Your task to perform on an android device: Open Youtube and go to the subscriptions tab Image 0: 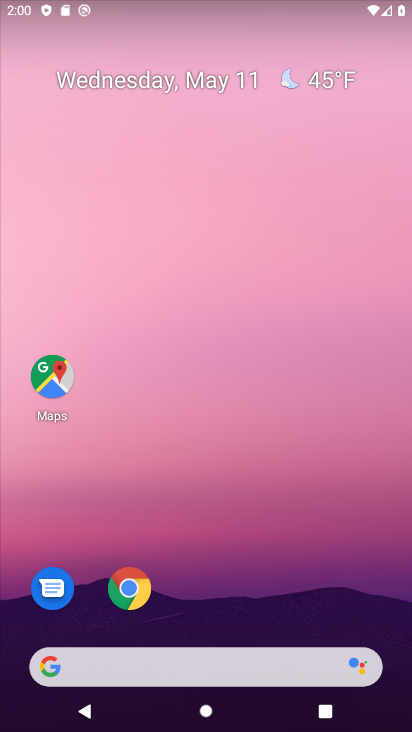
Step 0: drag from (228, 620) to (182, 195)
Your task to perform on an android device: Open Youtube and go to the subscriptions tab Image 1: 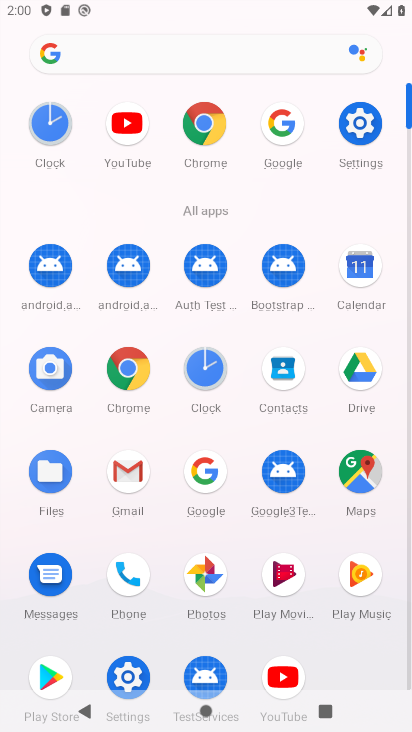
Step 1: click (258, 682)
Your task to perform on an android device: Open Youtube and go to the subscriptions tab Image 2: 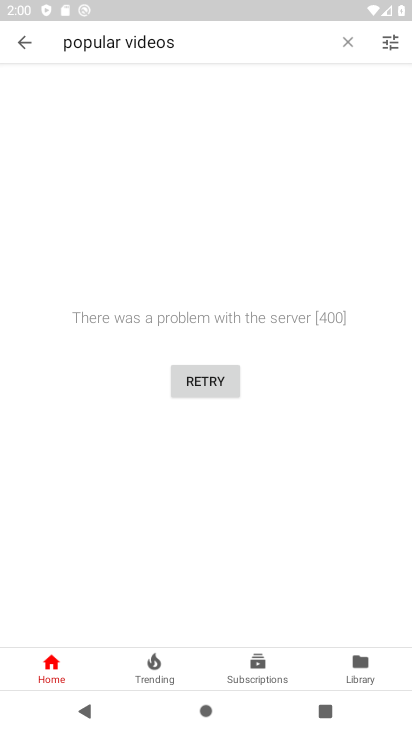
Step 2: click (266, 667)
Your task to perform on an android device: Open Youtube and go to the subscriptions tab Image 3: 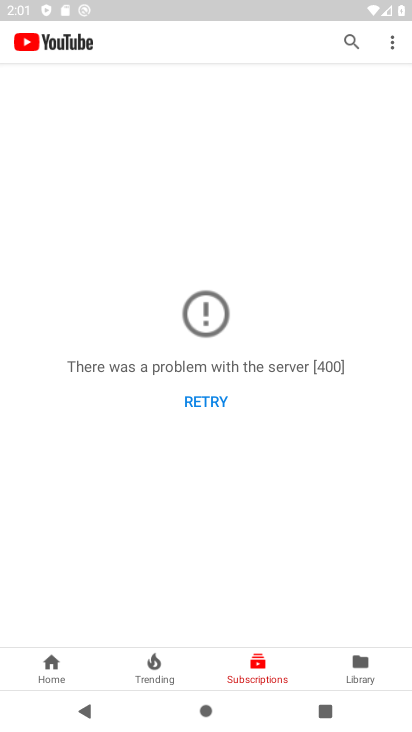
Step 3: task complete